Your task to perform on an android device: visit the assistant section in the google photos Image 0: 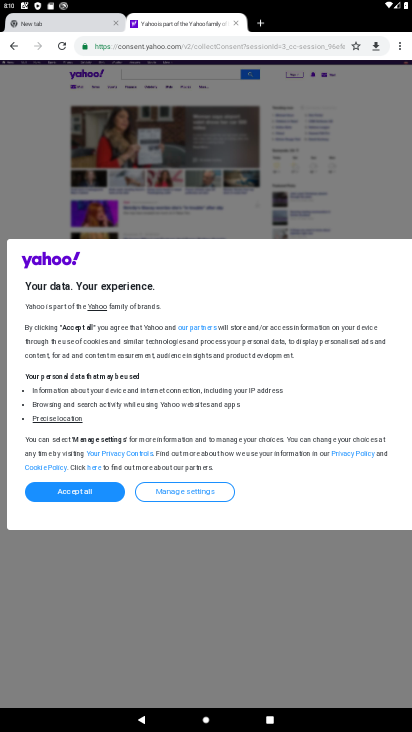
Step 0: press home button
Your task to perform on an android device: visit the assistant section in the google photos Image 1: 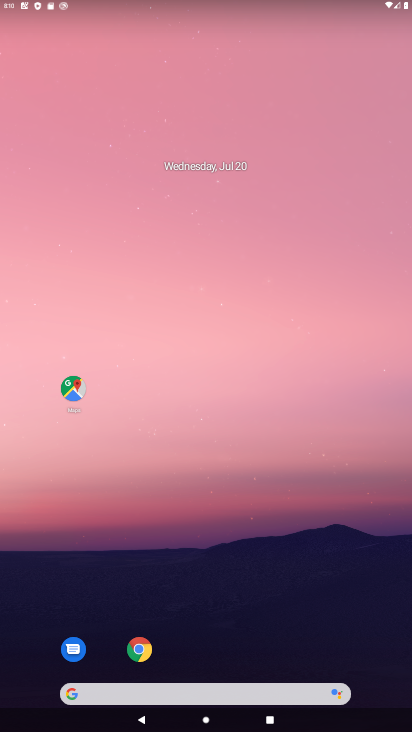
Step 1: drag from (298, 658) to (265, 13)
Your task to perform on an android device: visit the assistant section in the google photos Image 2: 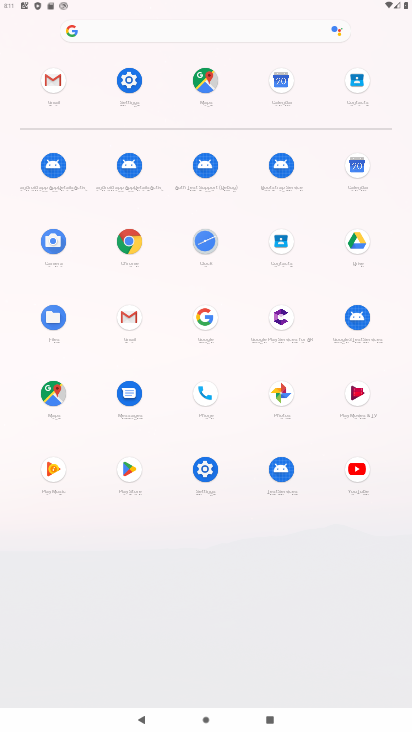
Step 2: click (265, 393)
Your task to perform on an android device: visit the assistant section in the google photos Image 3: 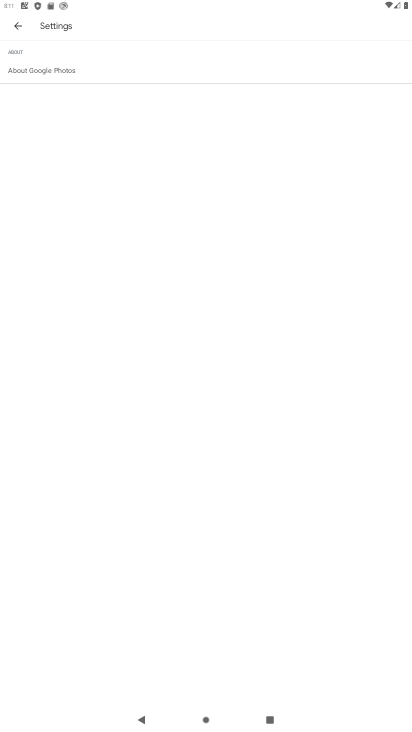
Step 3: press home button
Your task to perform on an android device: visit the assistant section in the google photos Image 4: 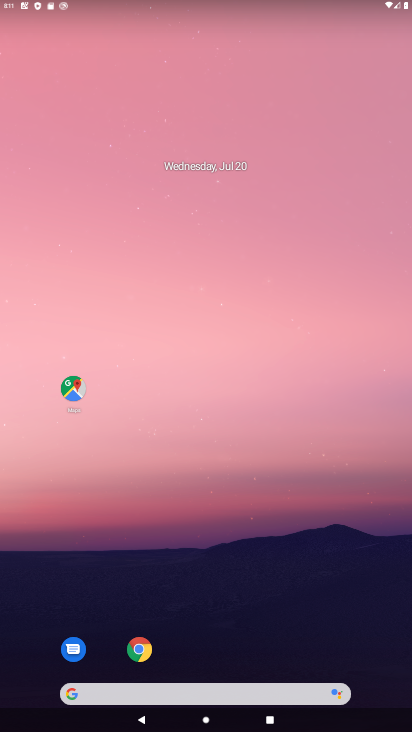
Step 4: drag from (299, 656) to (195, 25)
Your task to perform on an android device: visit the assistant section in the google photos Image 5: 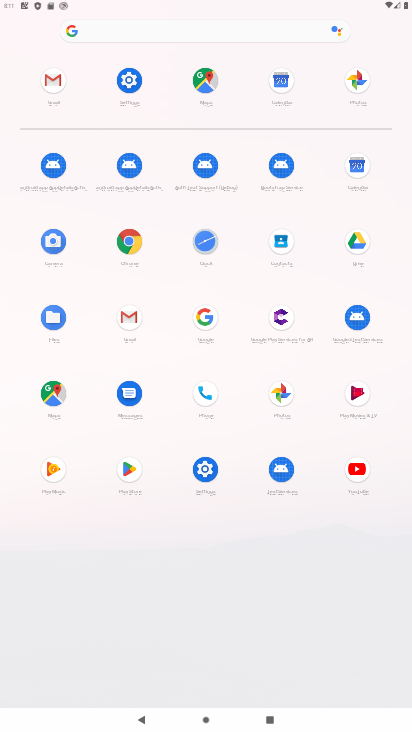
Step 5: click (276, 412)
Your task to perform on an android device: visit the assistant section in the google photos Image 6: 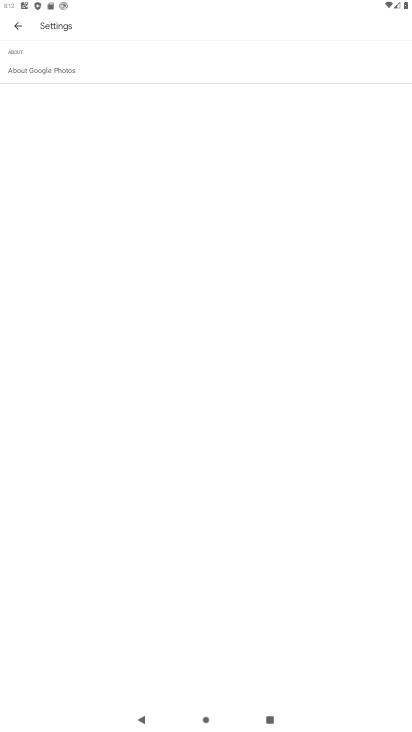
Step 6: click (22, 32)
Your task to perform on an android device: visit the assistant section in the google photos Image 7: 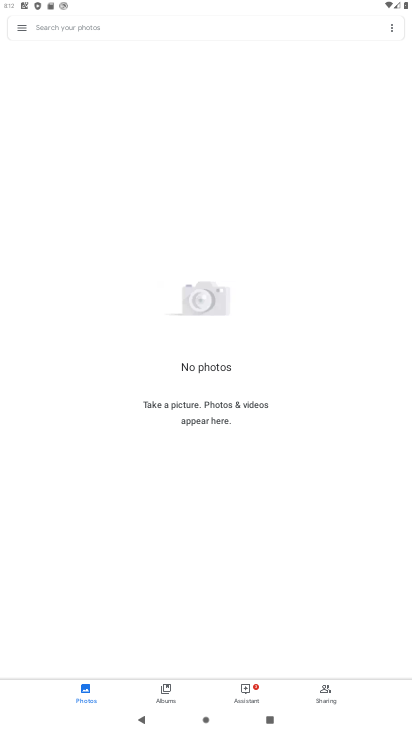
Step 7: task complete